Your task to perform on an android device: turn on data saver in the chrome app Image 0: 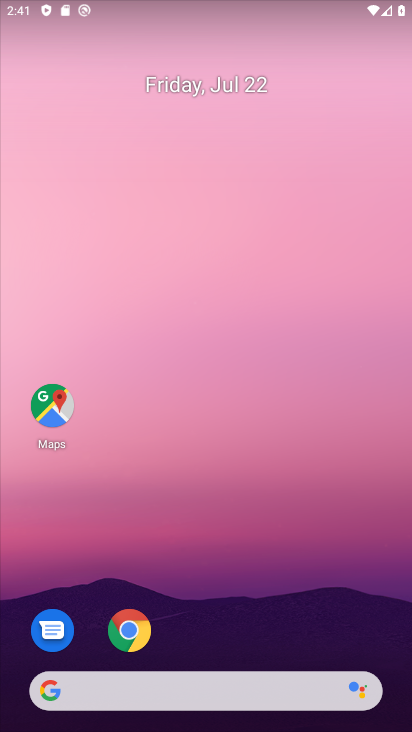
Step 0: press home button
Your task to perform on an android device: turn on data saver in the chrome app Image 1: 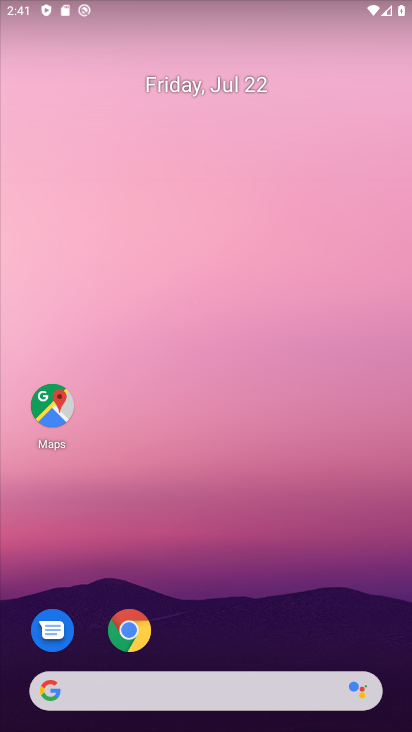
Step 1: click (123, 632)
Your task to perform on an android device: turn on data saver in the chrome app Image 2: 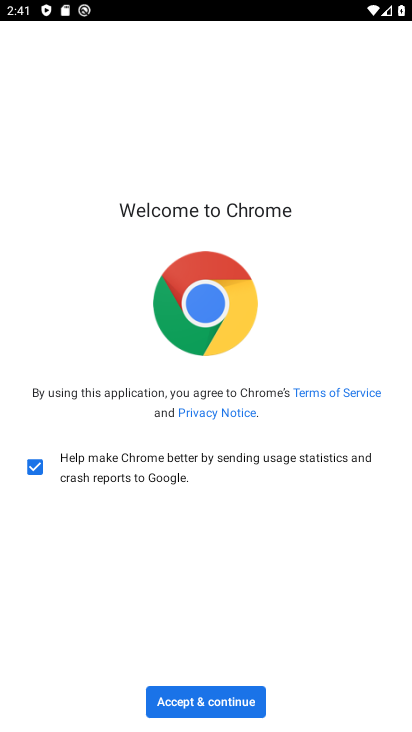
Step 2: click (203, 698)
Your task to perform on an android device: turn on data saver in the chrome app Image 3: 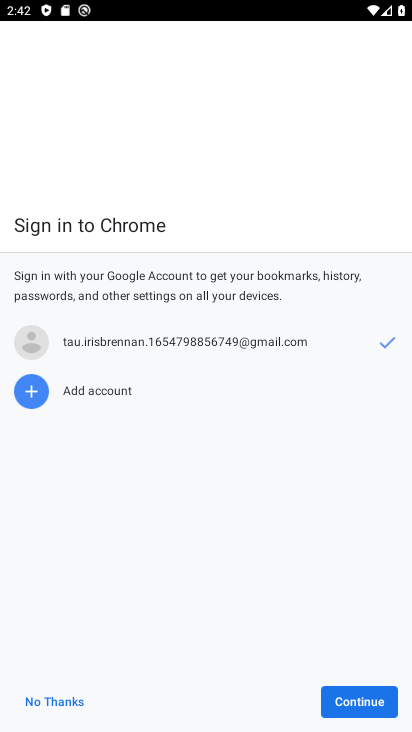
Step 3: click (349, 692)
Your task to perform on an android device: turn on data saver in the chrome app Image 4: 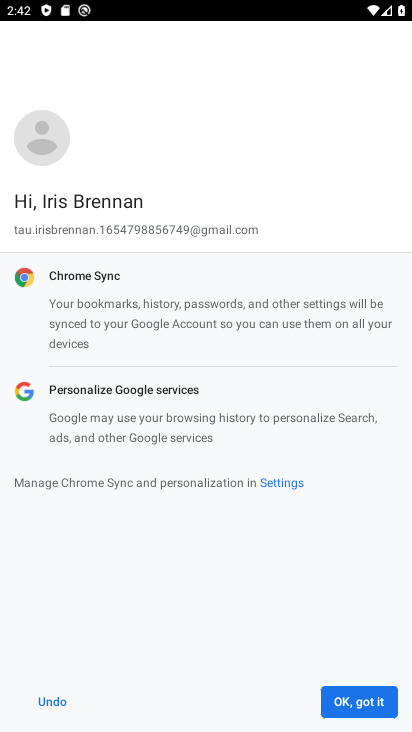
Step 4: click (356, 701)
Your task to perform on an android device: turn on data saver in the chrome app Image 5: 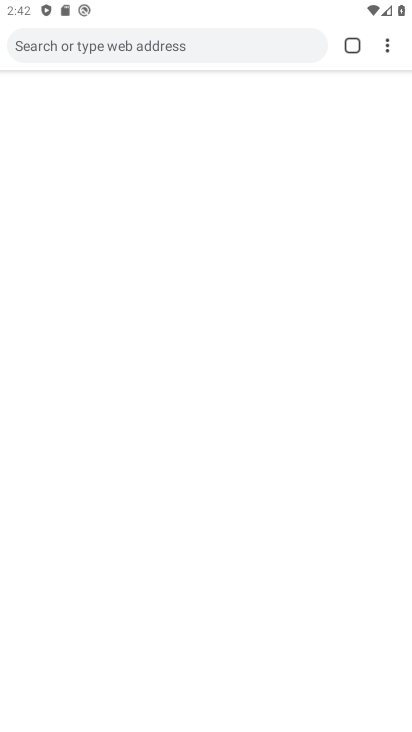
Step 5: click (381, 56)
Your task to perform on an android device: turn on data saver in the chrome app Image 6: 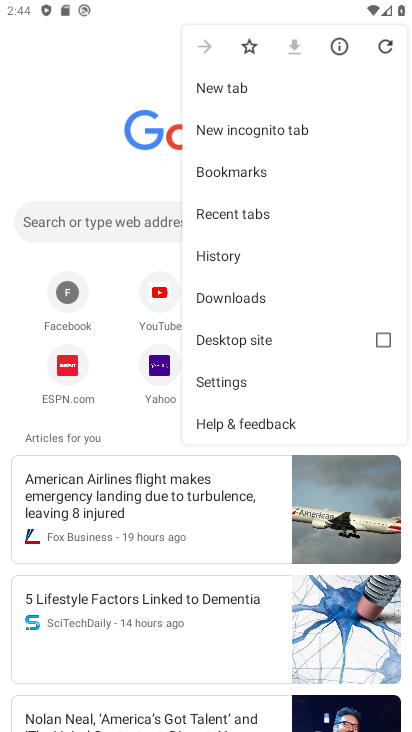
Step 6: click (231, 380)
Your task to perform on an android device: turn on data saver in the chrome app Image 7: 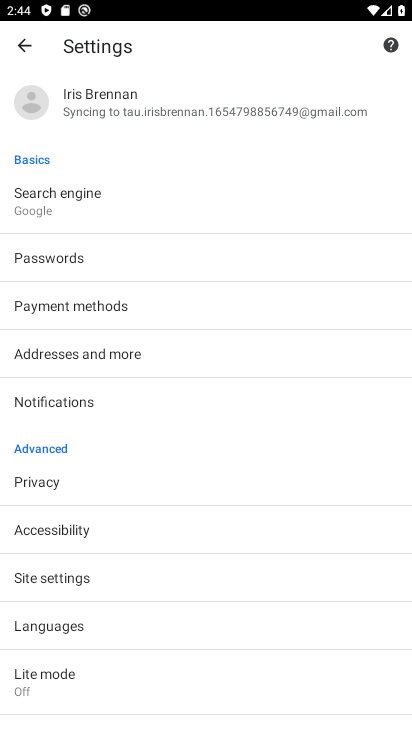
Step 7: click (67, 674)
Your task to perform on an android device: turn on data saver in the chrome app Image 8: 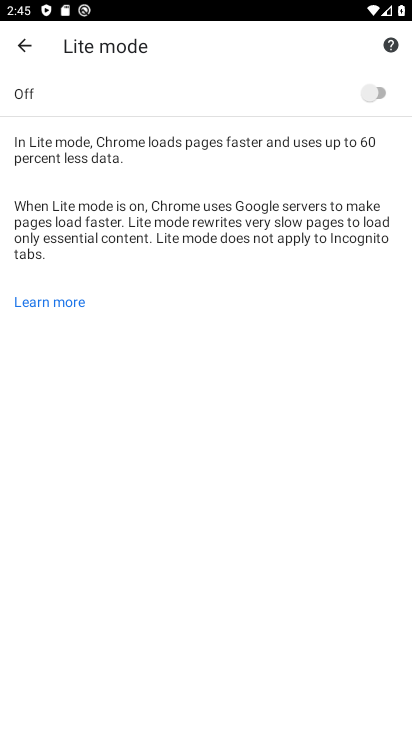
Step 8: click (381, 89)
Your task to perform on an android device: turn on data saver in the chrome app Image 9: 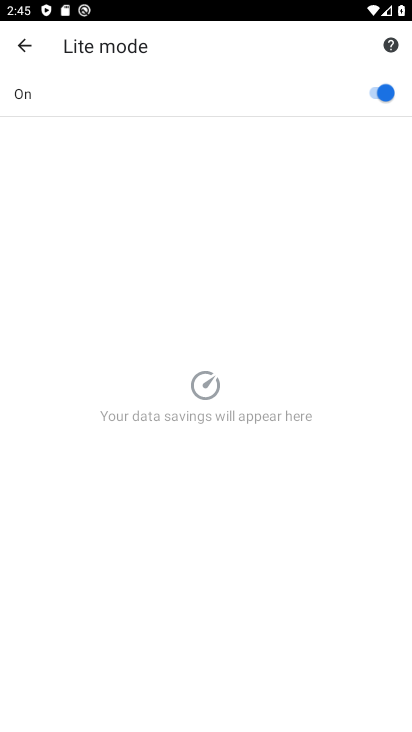
Step 9: task complete